Your task to perform on an android device: turn notification dots on Image 0: 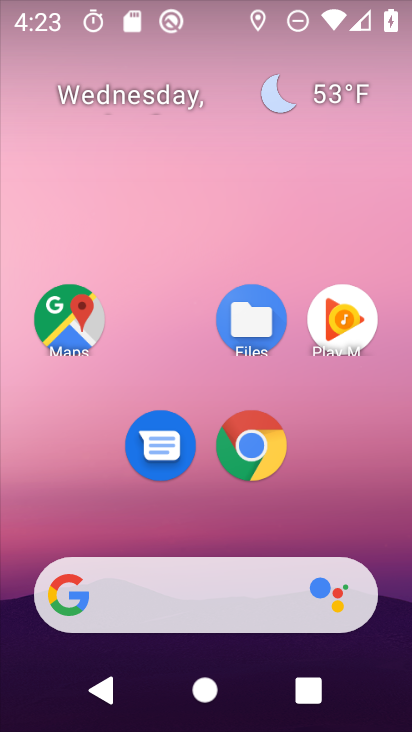
Step 0: drag from (322, 471) to (272, 162)
Your task to perform on an android device: turn notification dots on Image 1: 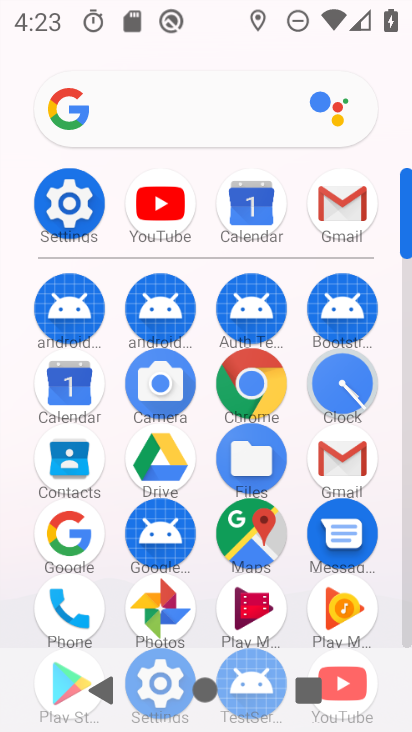
Step 1: click (76, 203)
Your task to perform on an android device: turn notification dots on Image 2: 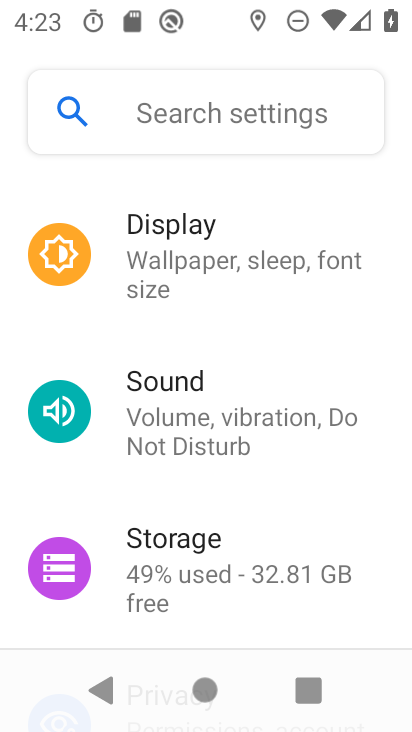
Step 2: drag from (272, 445) to (264, 327)
Your task to perform on an android device: turn notification dots on Image 3: 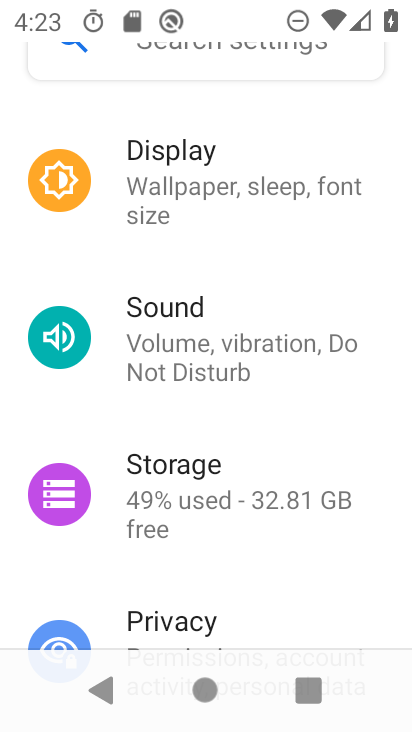
Step 3: drag from (286, 214) to (285, 558)
Your task to perform on an android device: turn notification dots on Image 4: 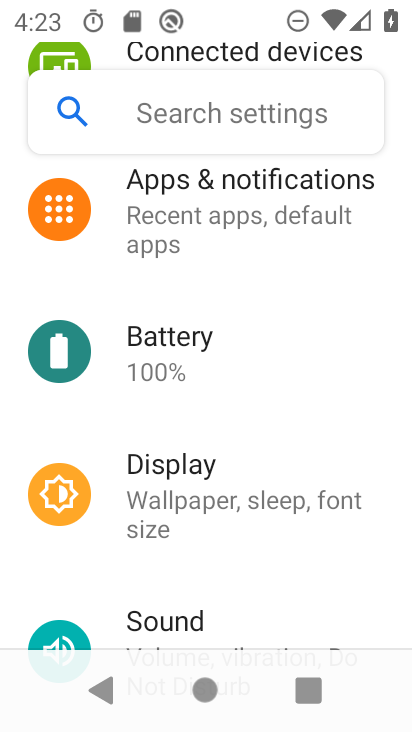
Step 4: click (248, 222)
Your task to perform on an android device: turn notification dots on Image 5: 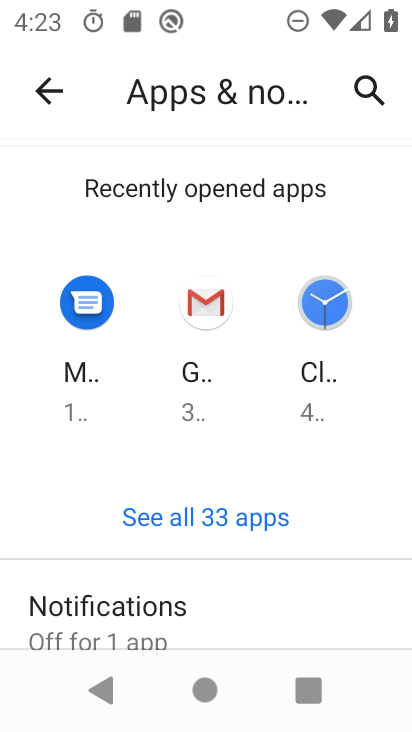
Step 5: click (165, 619)
Your task to perform on an android device: turn notification dots on Image 6: 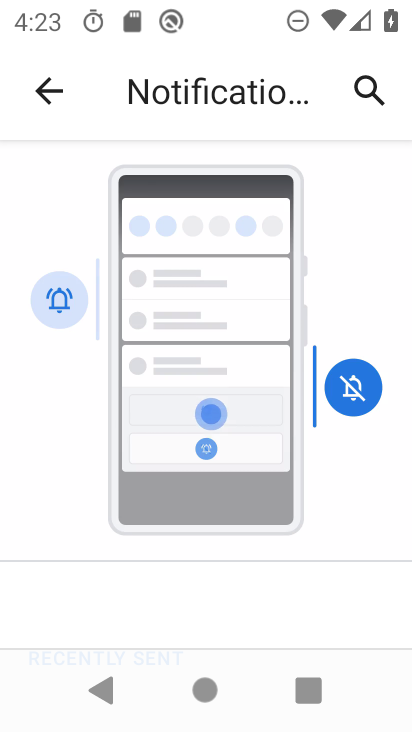
Step 6: drag from (253, 586) to (274, 393)
Your task to perform on an android device: turn notification dots on Image 7: 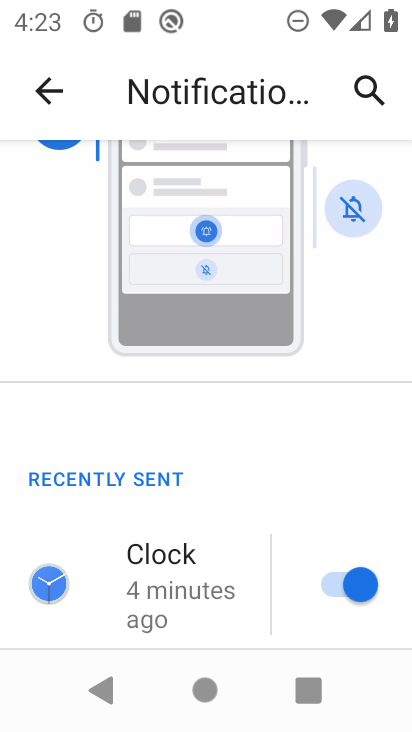
Step 7: drag from (310, 450) to (279, 64)
Your task to perform on an android device: turn notification dots on Image 8: 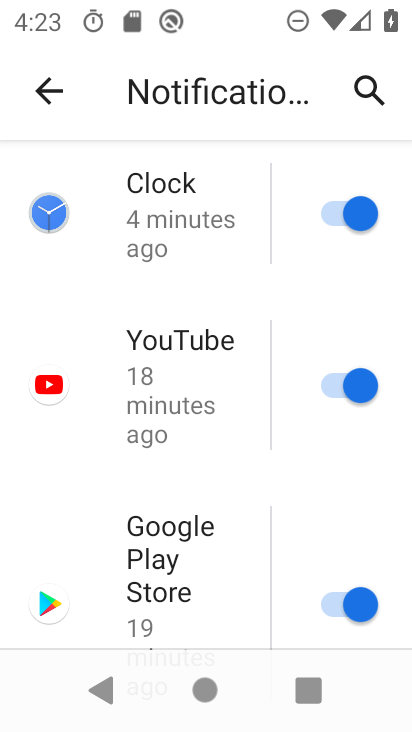
Step 8: drag from (212, 599) to (205, 202)
Your task to perform on an android device: turn notification dots on Image 9: 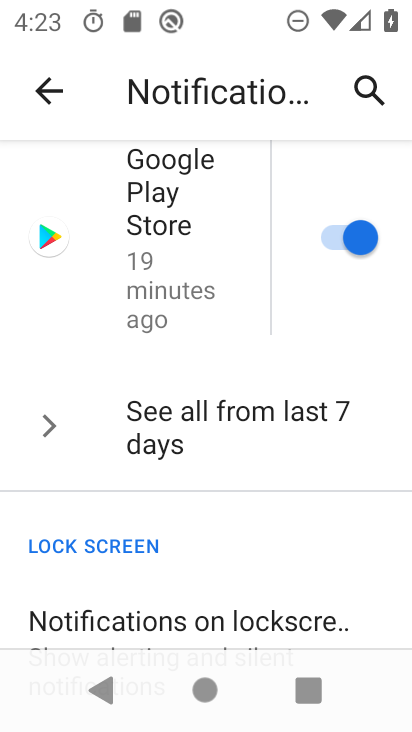
Step 9: click (233, 592)
Your task to perform on an android device: turn notification dots on Image 10: 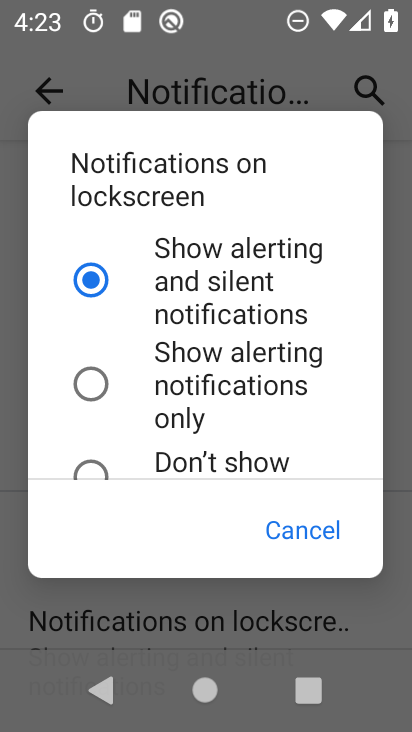
Step 10: click (305, 528)
Your task to perform on an android device: turn notification dots on Image 11: 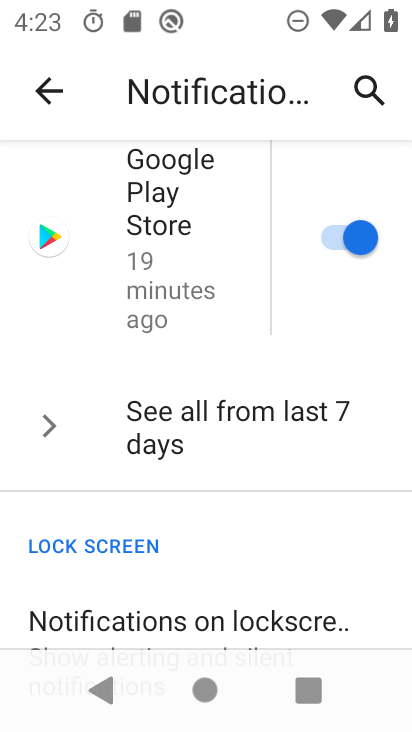
Step 11: drag from (272, 538) to (267, 169)
Your task to perform on an android device: turn notification dots on Image 12: 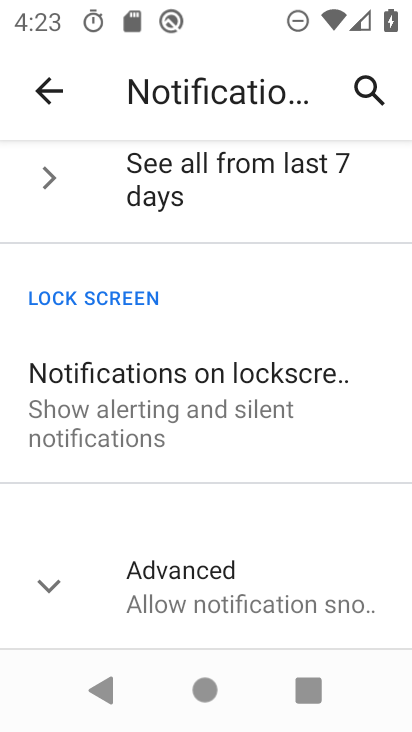
Step 12: click (222, 584)
Your task to perform on an android device: turn notification dots on Image 13: 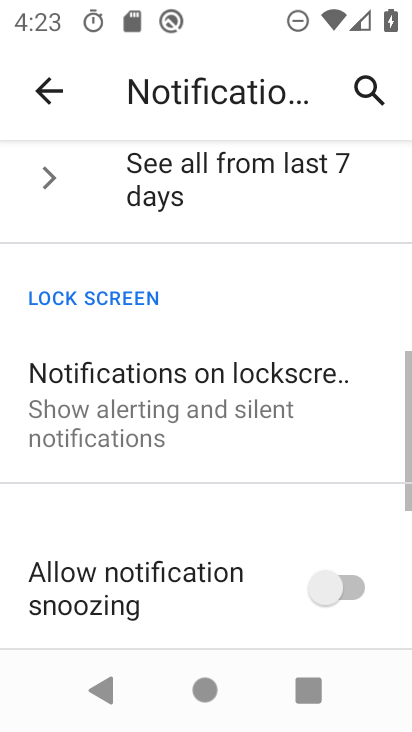
Step 13: drag from (224, 559) to (241, 200)
Your task to perform on an android device: turn notification dots on Image 14: 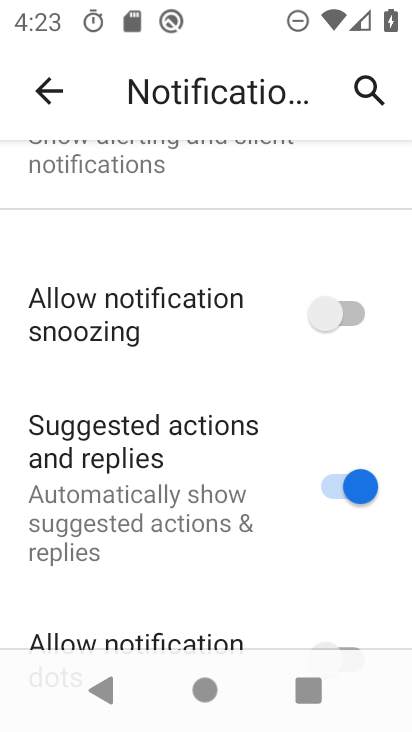
Step 14: drag from (214, 523) to (210, 232)
Your task to perform on an android device: turn notification dots on Image 15: 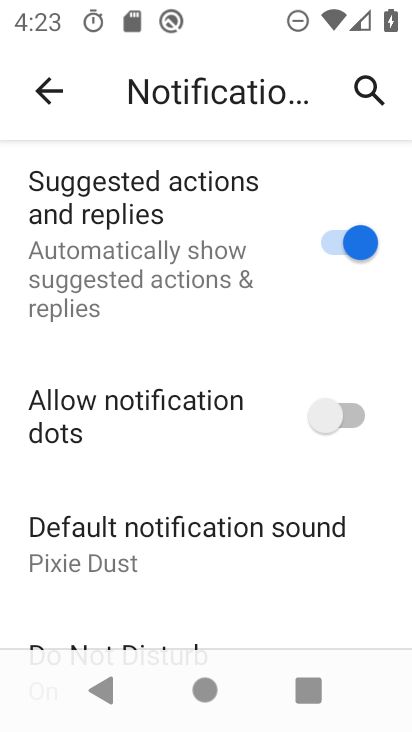
Step 15: click (327, 428)
Your task to perform on an android device: turn notification dots on Image 16: 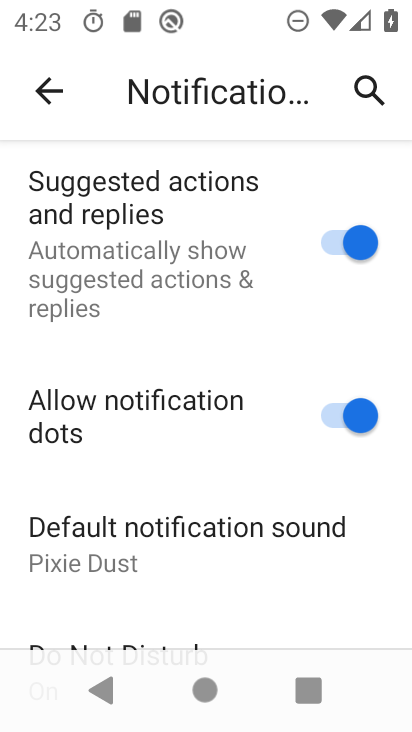
Step 16: task complete